Your task to perform on an android device: turn notification dots off Image 0: 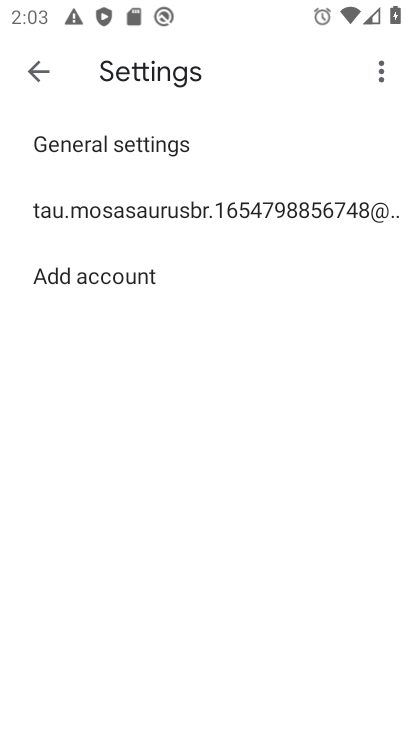
Step 0: press home button
Your task to perform on an android device: turn notification dots off Image 1: 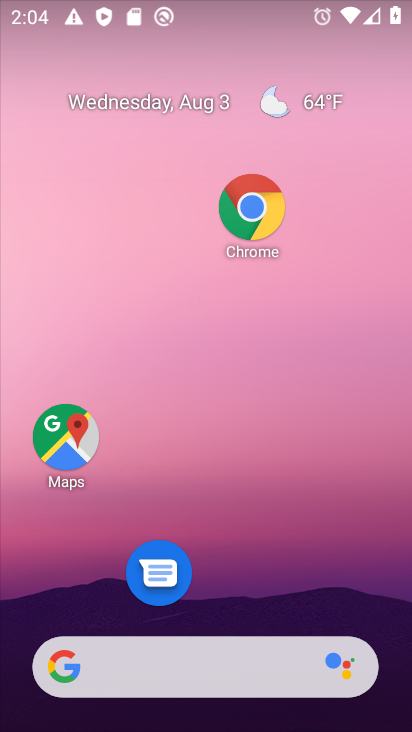
Step 1: drag from (187, 629) to (234, 109)
Your task to perform on an android device: turn notification dots off Image 2: 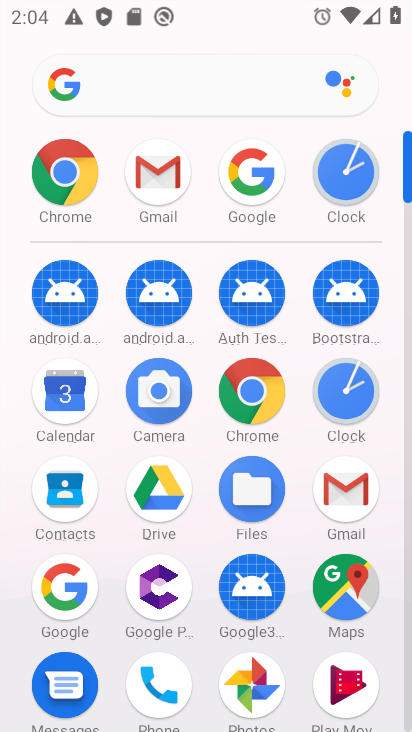
Step 2: drag from (233, 496) to (295, 4)
Your task to perform on an android device: turn notification dots off Image 3: 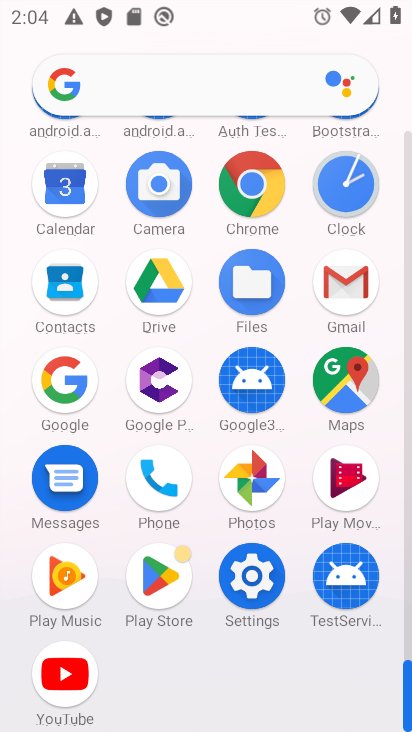
Step 3: click (243, 590)
Your task to perform on an android device: turn notification dots off Image 4: 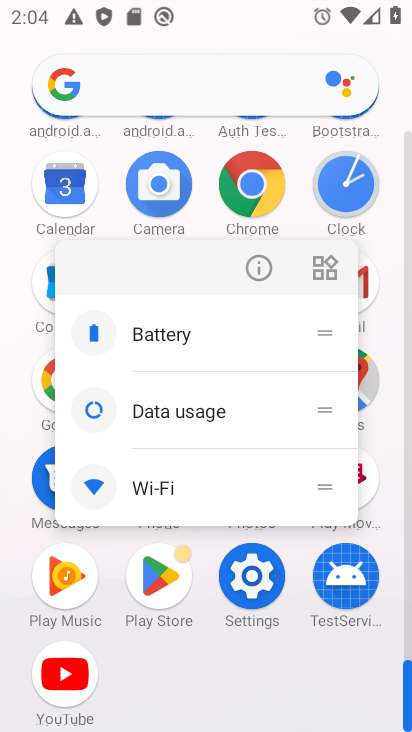
Step 4: click (249, 596)
Your task to perform on an android device: turn notification dots off Image 5: 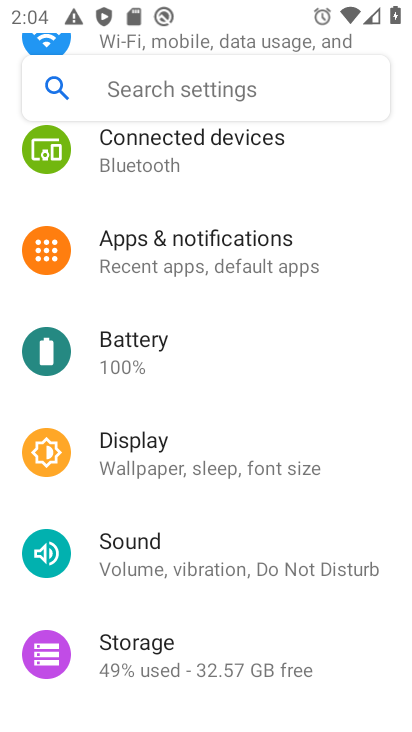
Step 5: click (241, 258)
Your task to perform on an android device: turn notification dots off Image 6: 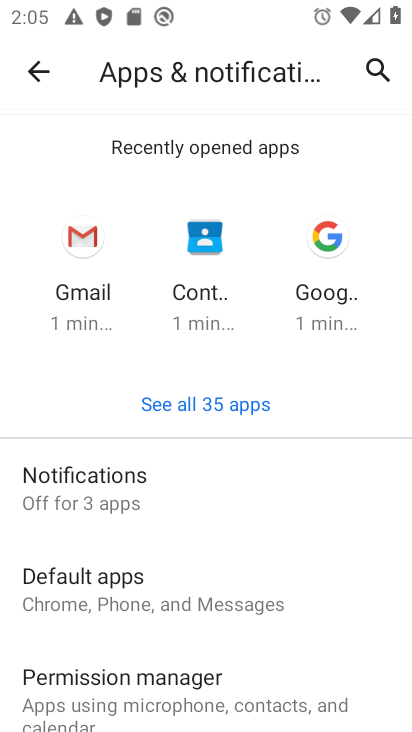
Step 6: drag from (205, 542) to (226, 372)
Your task to perform on an android device: turn notification dots off Image 7: 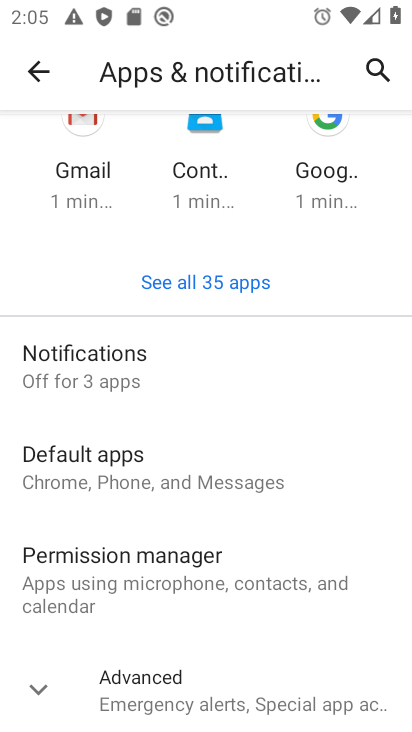
Step 7: click (174, 383)
Your task to perform on an android device: turn notification dots off Image 8: 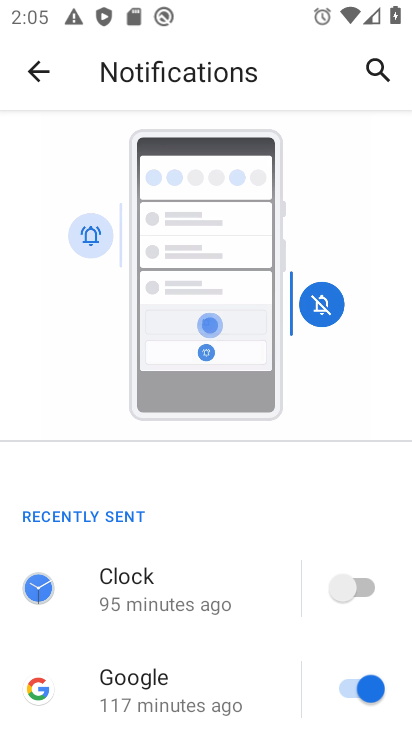
Step 8: drag from (204, 625) to (271, 293)
Your task to perform on an android device: turn notification dots off Image 9: 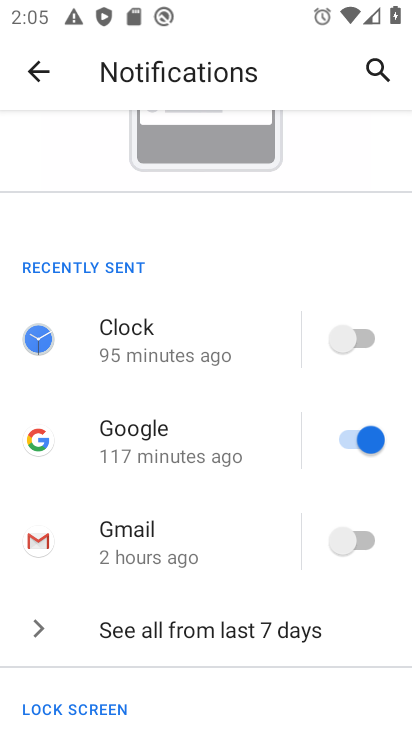
Step 9: drag from (244, 607) to (265, 351)
Your task to perform on an android device: turn notification dots off Image 10: 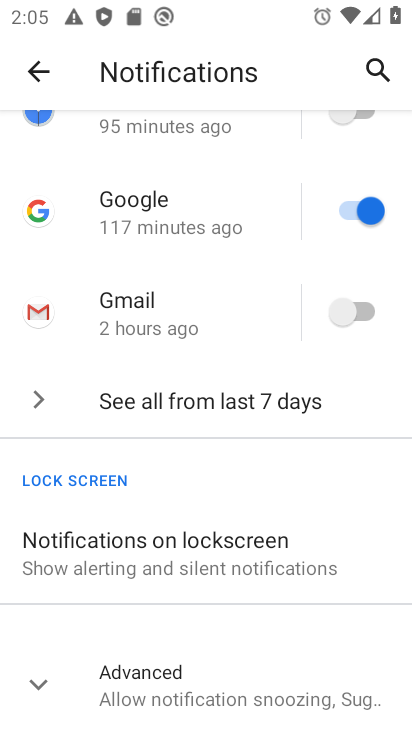
Step 10: click (210, 676)
Your task to perform on an android device: turn notification dots off Image 11: 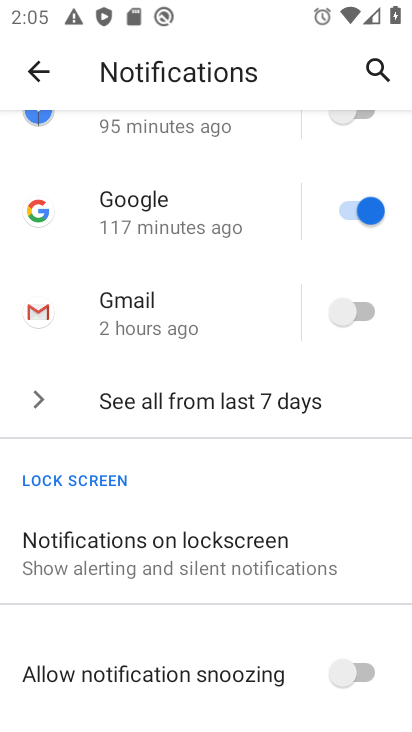
Step 11: drag from (215, 653) to (262, 412)
Your task to perform on an android device: turn notification dots off Image 12: 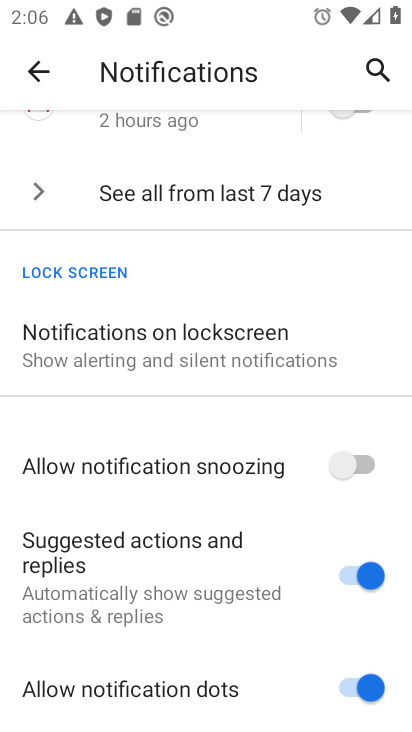
Step 12: click (348, 688)
Your task to perform on an android device: turn notification dots off Image 13: 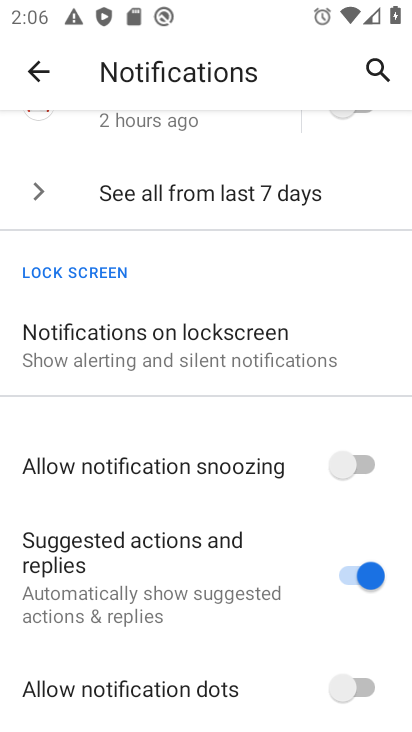
Step 13: task complete